Your task to perform on an android device: open app "Firefox Browser" (install if not already installed) and enter user name: "hashed@outlook.com" and password: "congestive" Image 0: 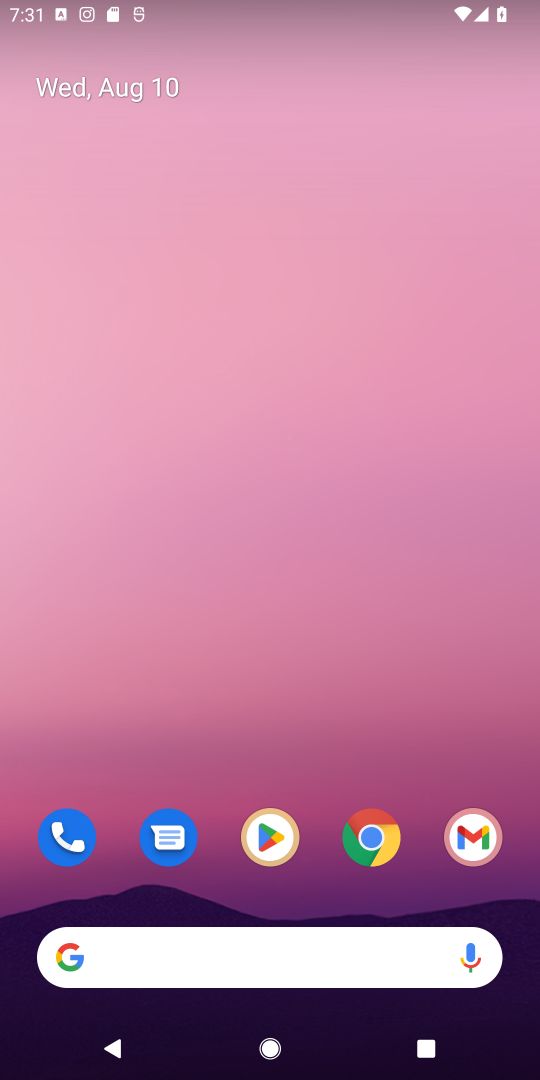
Step 0: press home button
Your task to perform on an android device: open app "Firefox Browser" (install if not already installed) and enter user name: "hashed@outlook.com" and password: "congestive" Image 1: 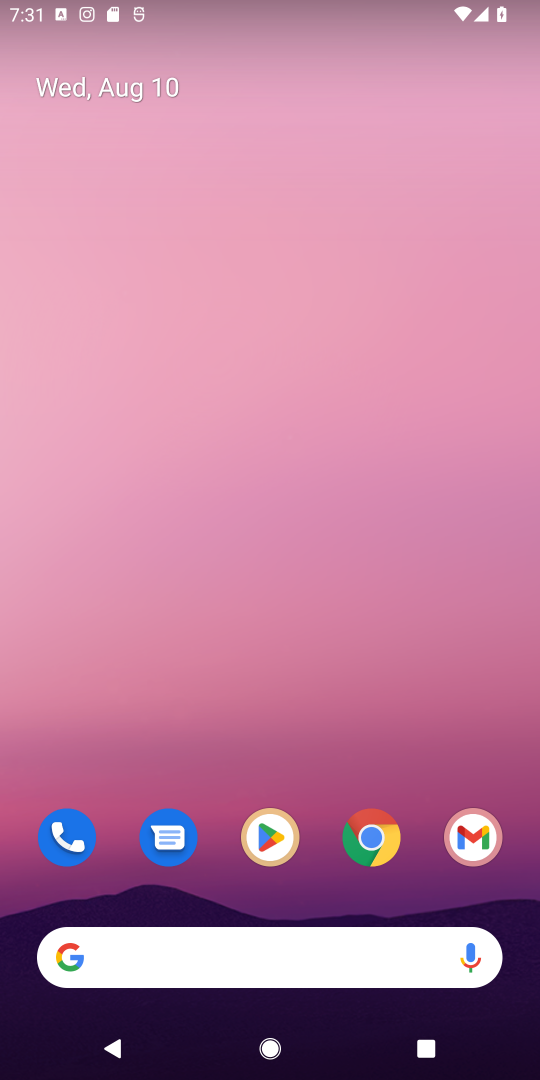
Step 1: click (264, 847)
Your task to perform on an android device: open app "Firefox Browser" (install if not already installed) and enter user name: "hashed@outlook.com" and password: "congestive" Image 2: 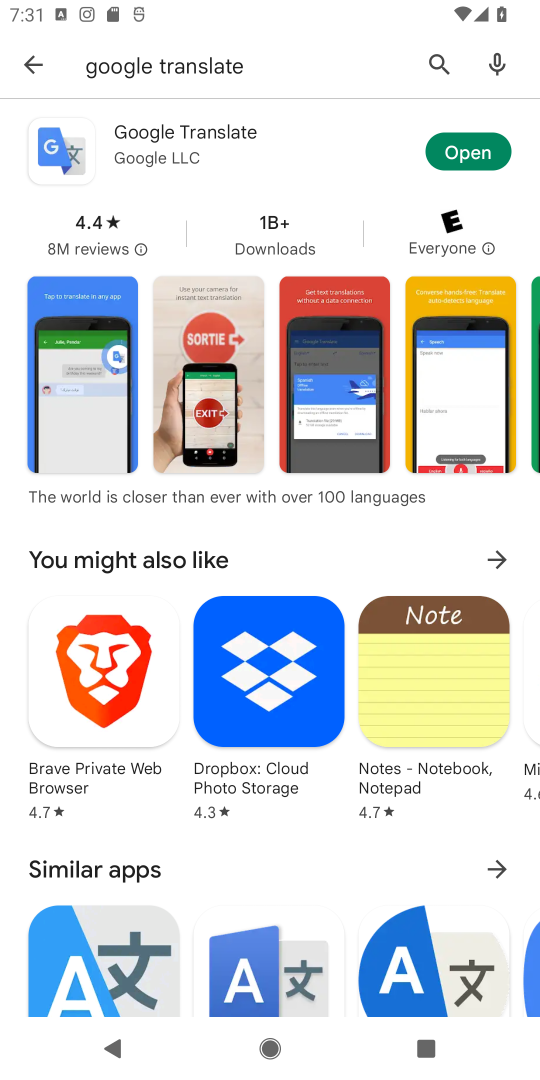
Step 2: click (437, 66)
Your task to perform on an android device: open app "Firefox Browser" (install if not already installed) and enter user name: "hashed@outlook.com" and password: "congestive" Image 3: 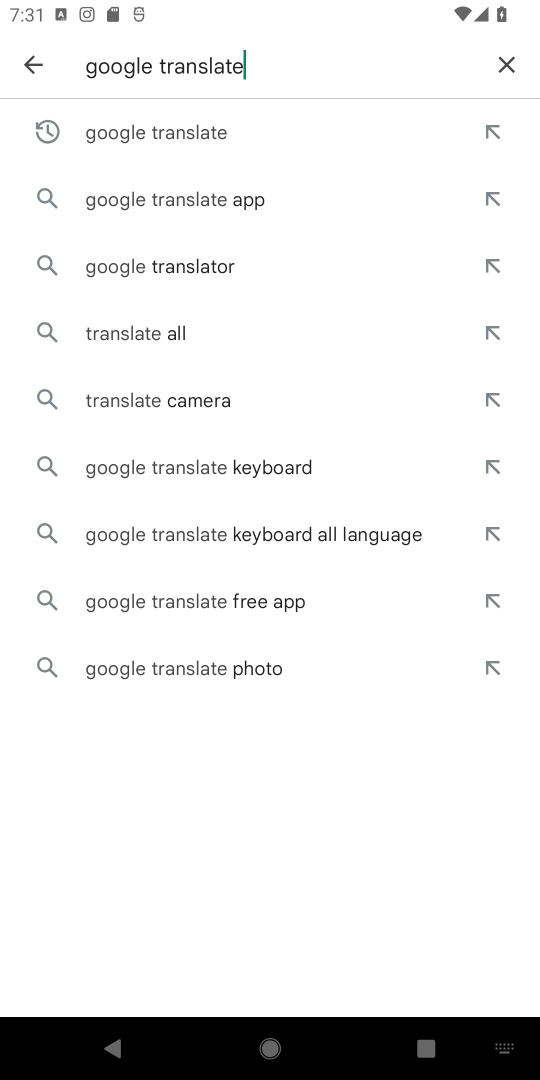
Step 3: click (511, 55)
Your task to perform on an android device: open app "Firefox Browser" (install if not already installed) and enter user name: "hashed@outlook.com" and password: "congestive" Image 4: 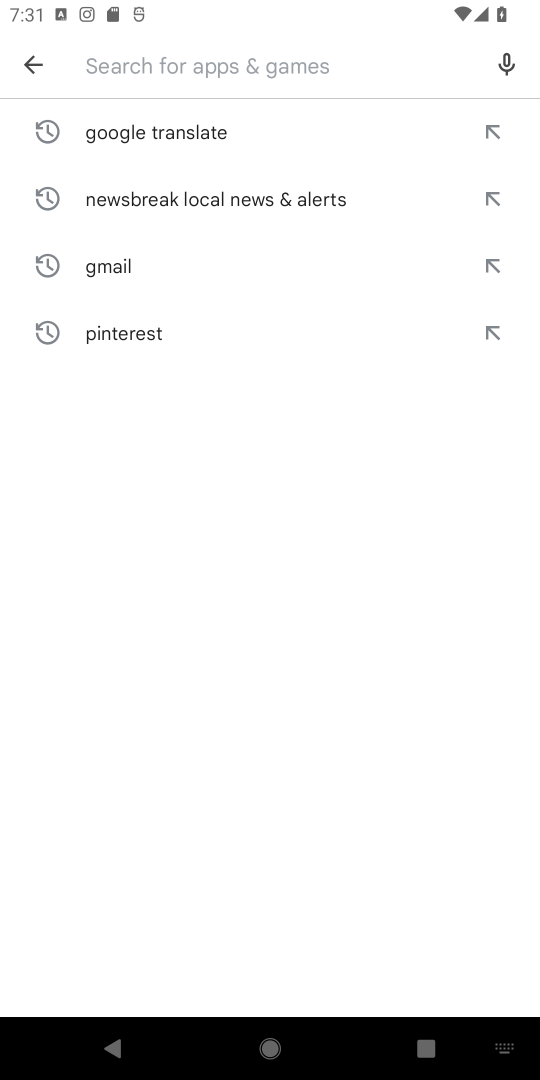
Step 4: type "Firefox Browser"
Your task to perform on an android device: open app "Firefox Browser" (install if not already installed) and enter user name: "hashed@outlook.com" and password: "congestive" Image 5: 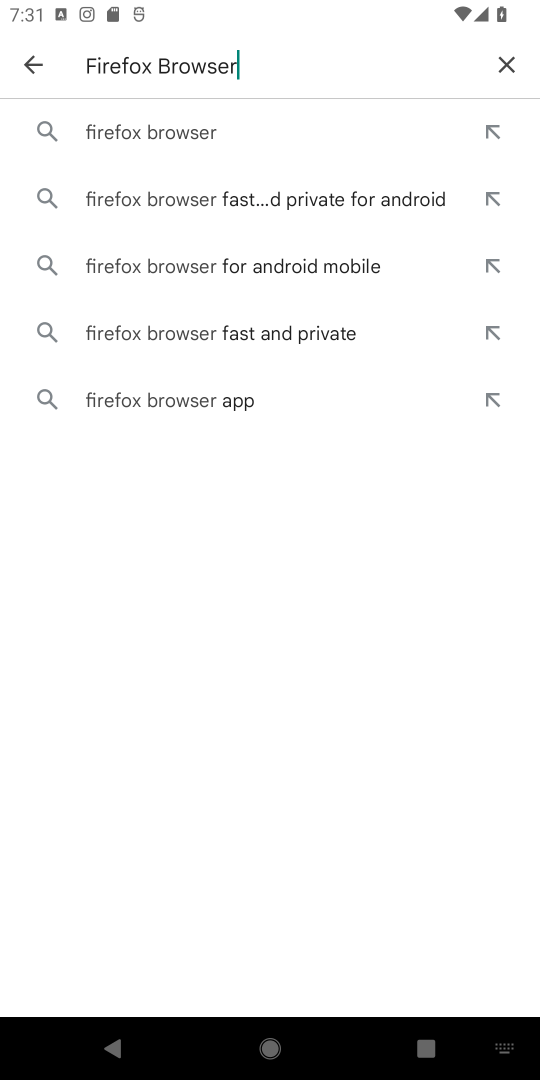
Step 5: click (219, 130)
Your task to perform on an android device: open app "Firefox Browser" (install if not already installed) and enter user name: "hashed@outlook.com" and password: "congestive" Image 6: 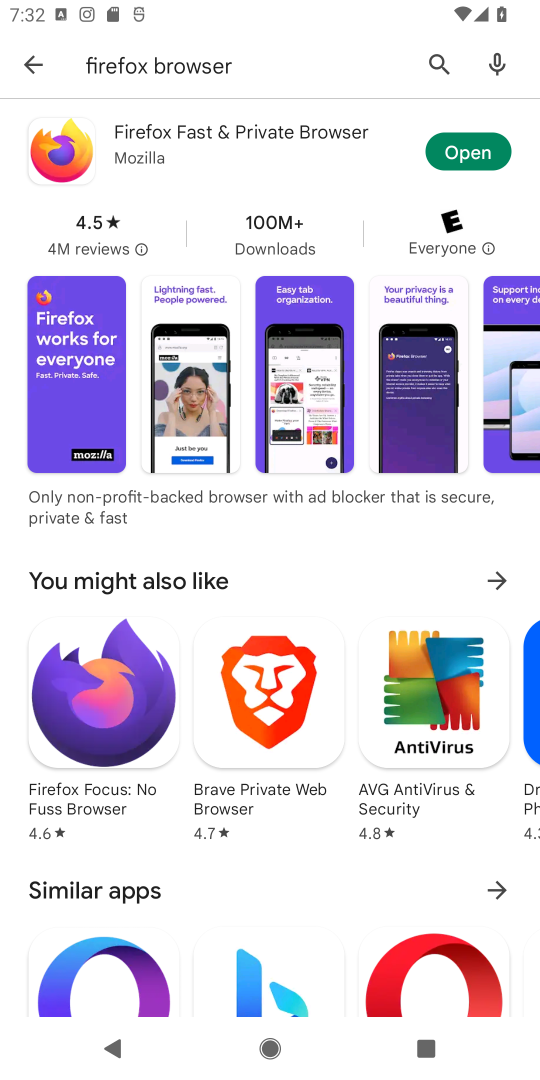
Step 6: click (483, 155)
Your task to perform on an android device: open app "Firefox Browser" (install if not already installed) and enter user name: "hashed@outlook.com" and password: "congestive" Image 7: 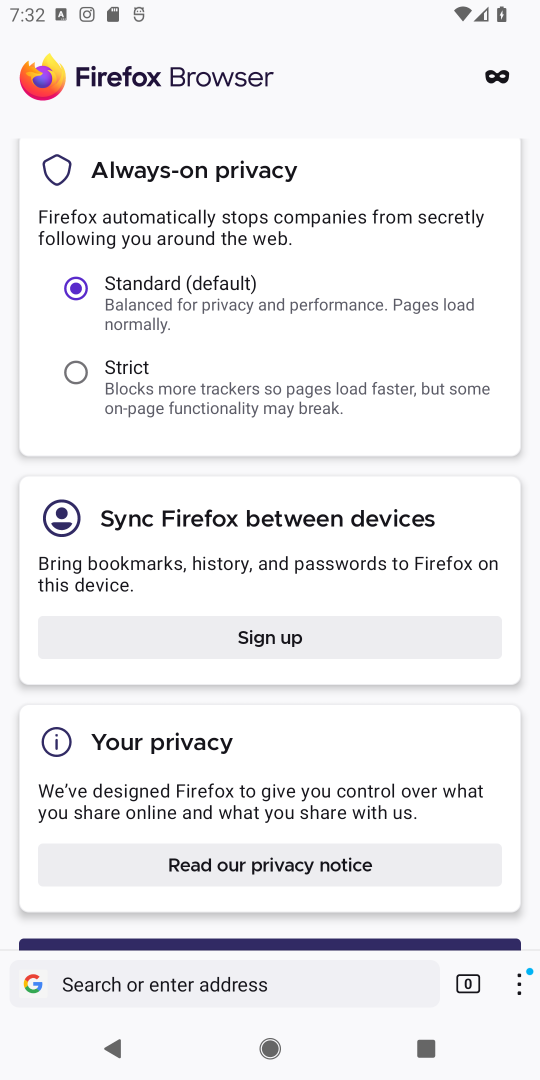
Step 7: task complete